Your task to perform on an android device: turn on improve location accuracy Image 0: 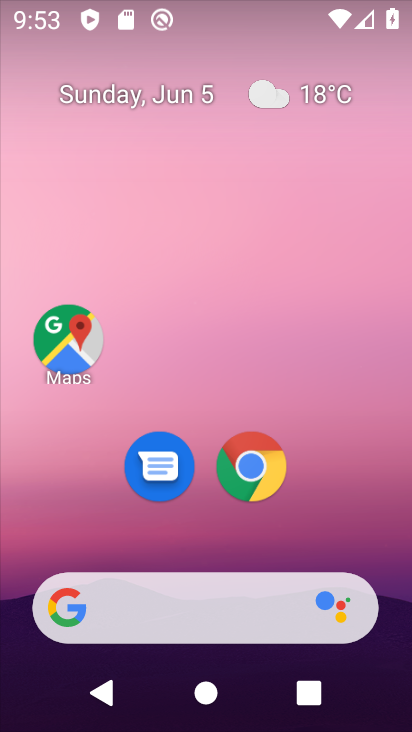
Step 0: drag from (348, 496) to (224, 50)
Your task to perform on an android device: turn on improve location accuracy Image 1: 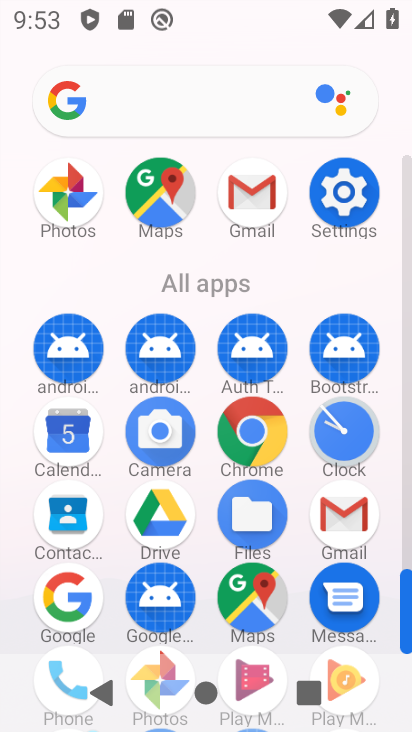
Step 1: click (344, 197)
Your task to perform on an android device: turn on improve location accuracy Image 2: 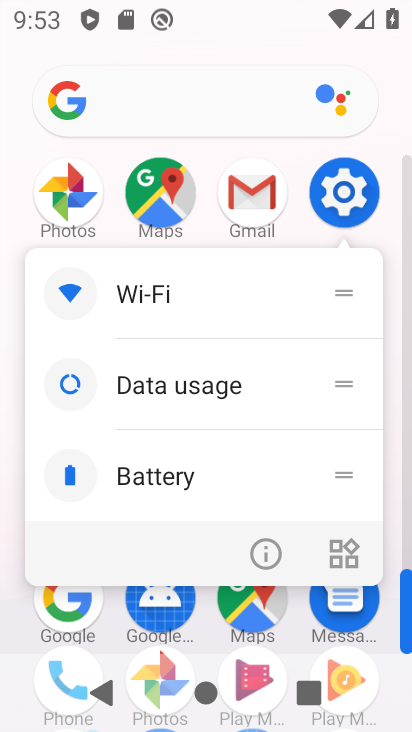
Step 2: click (344, 197)
Your task to perform on an android device: turn on improve location accuracy Image 3: 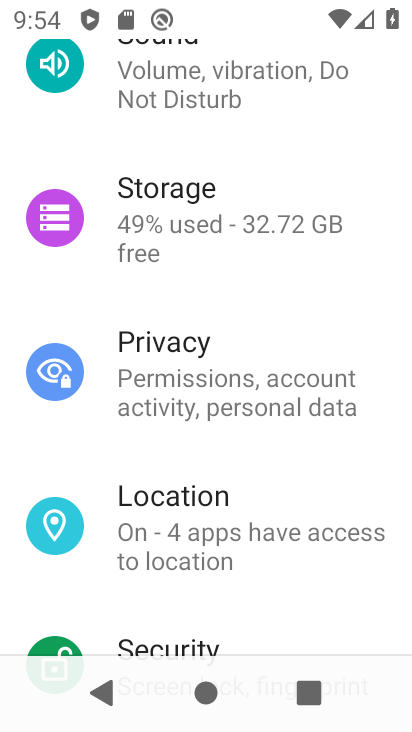
Step 3: drag from (252, 454) to (248, 358)
Your task to perform on an android device: turn on improve location accuracy Image 4: 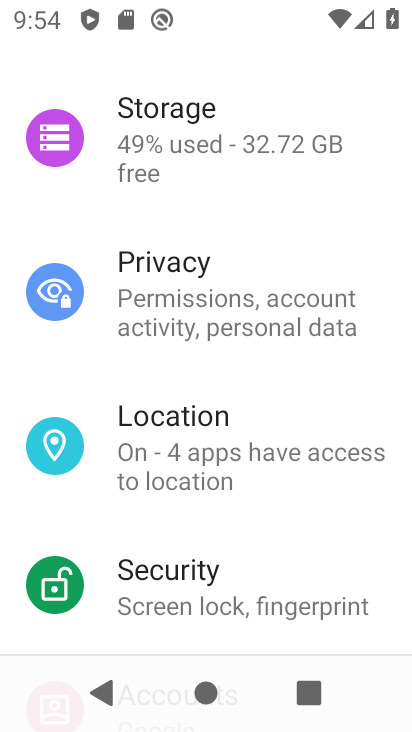
Step 4: click (249, 449)
Your task to perform on an android device: turn on improve location accuracy Image 5: 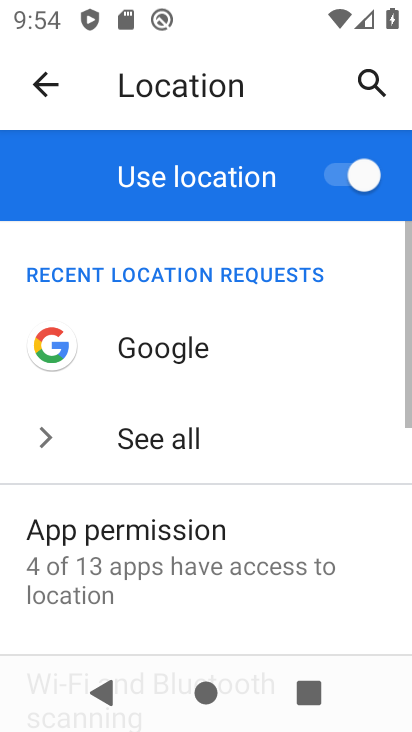
Step 5: drag from (266, 552) to (322, 404)
Your task to perform on an android device: turn on improve location accuracy Image 6: 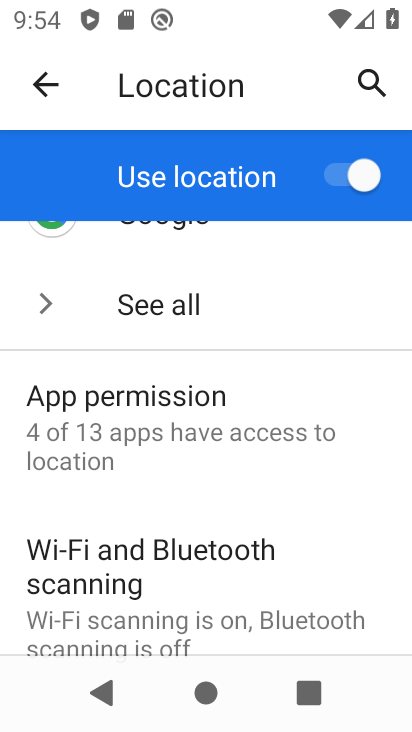
Step 6: drag from (251, 507) to (334, 357)
Your task to perform on an android device: turn on improve location accuracy Image 7: 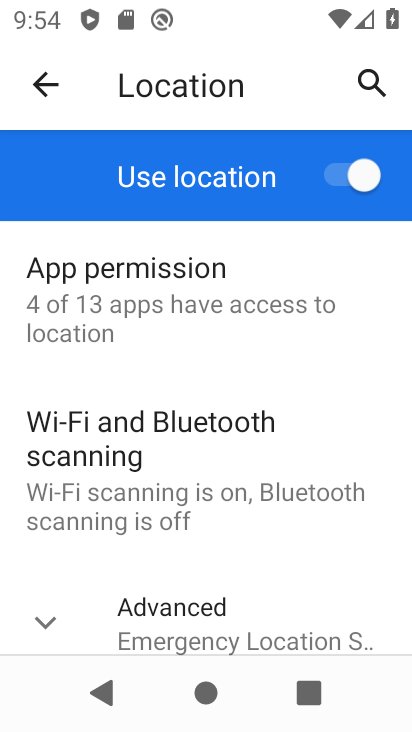
Step 7: drag from (230, 540) to (311, 431)
Your task to perform on an android device: turn on improve location accuracy Image 8: 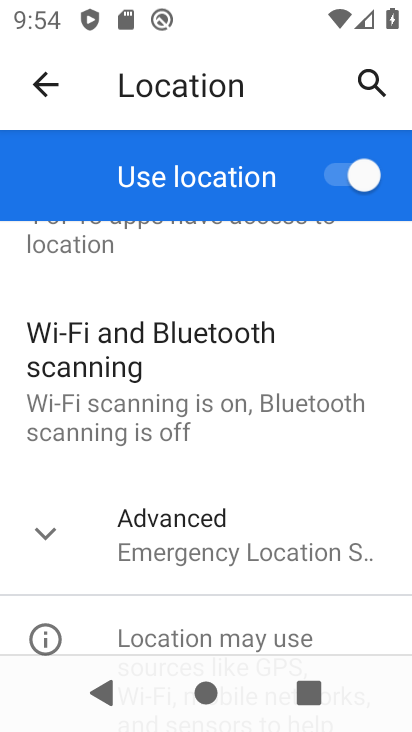
Step 8: click (271, 565)
Your task to perform on an android device: turn on improve location accuracy Image 9: 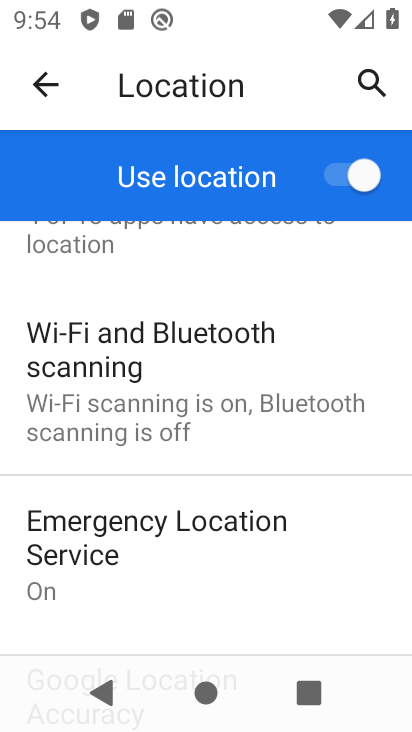
Step 9: drag from (193, 576) to (259, 461)
Your task to perform on an android device: turn on improve location accuracy Image 10: 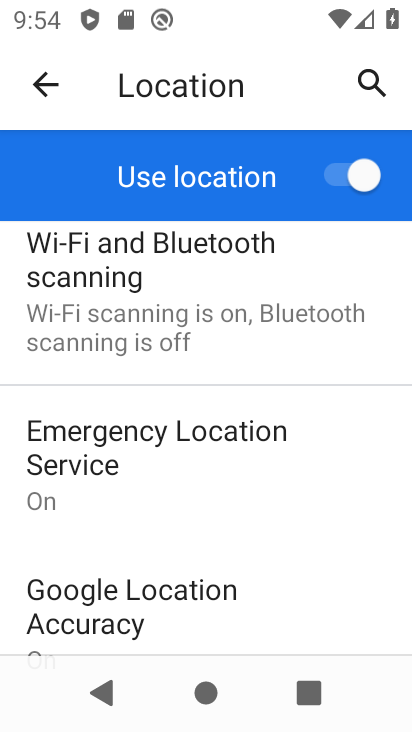
Step 10: drag from (188, 556) to (298, 422)
Your task to perform on an android device: turn on improve location accuracy Image 11: 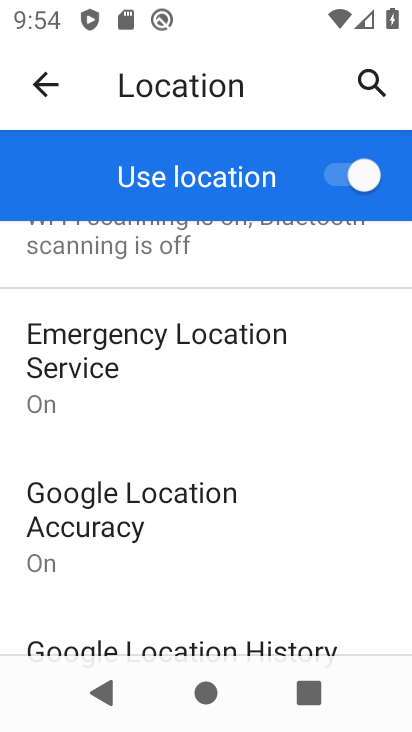
Step 11: click (197, 537)
Your task to perform on an android device: turn on improve location accuracy Image 12: 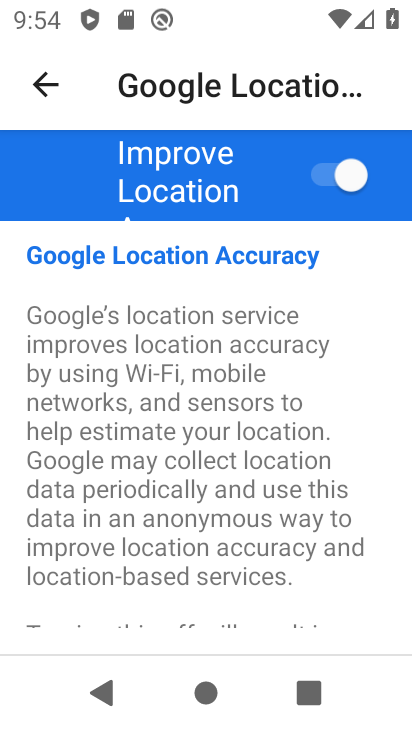
Step 12: task complete